Your task to perform on an android device: turn off smart reply in the gmail app Image 0: 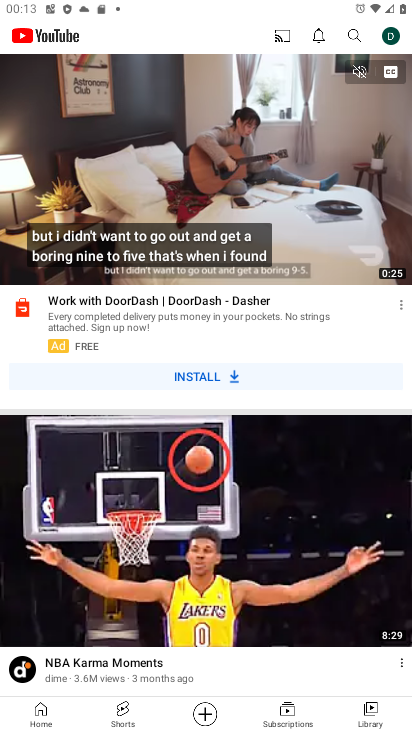
Step 0: press home button
Your task to perform on an android device: turn off smart reply in the gmail app Image 1: 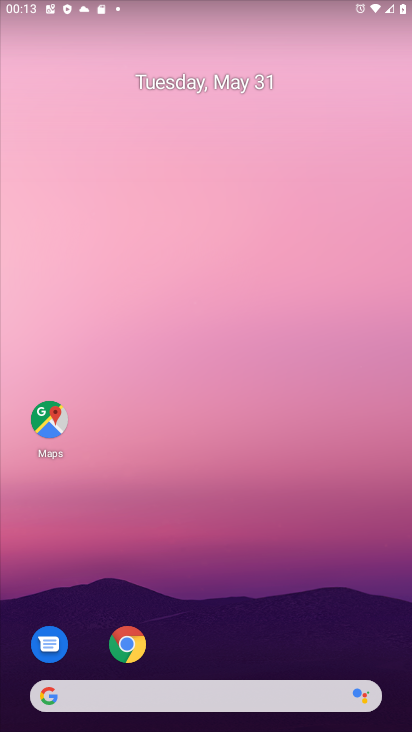
Step 1: drag from (387, 653) to (337, 285)
Your task to perform on an android device: turn off smart reply in the gmail app Image 2: 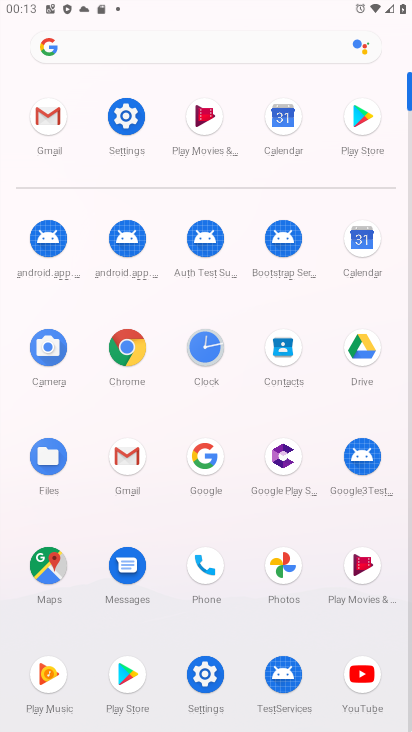
Step 2: click (127, 454)
Your task to perform on an android device: turn off smart reply in the gmail app Image 3: 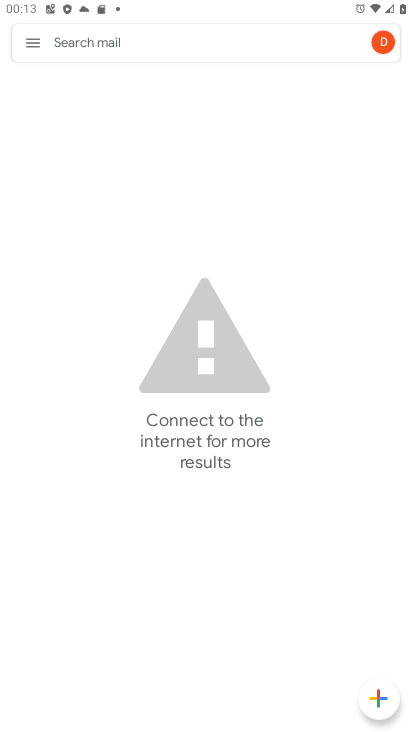
Step 3: click (30, 41)
Your task to perform on an android device: turn off smart reply in the gmail app Image 4: 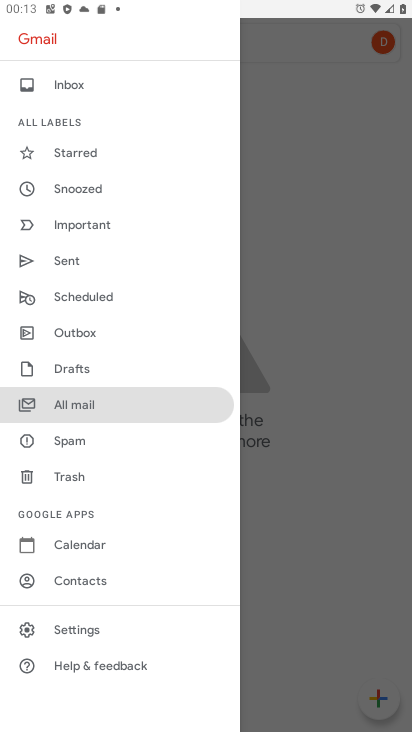
Step 4: click (66, 631)
Your task to perform on an android device: turn off smart reply in the gmail app Image 5: 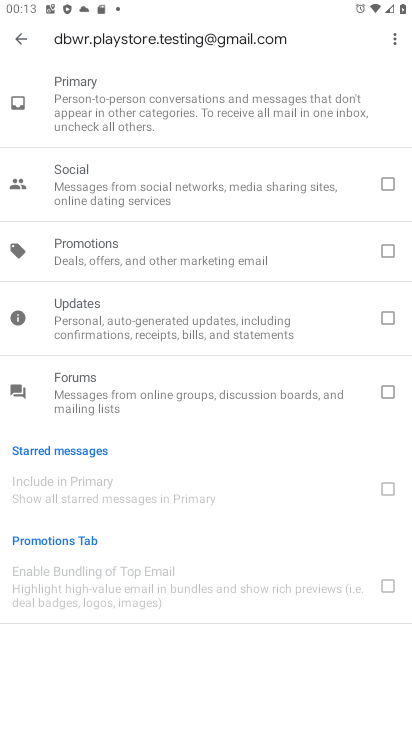
Step 5: press back button
Your task to perform on an android device: turn off smart reply in the gmail app Image 6: 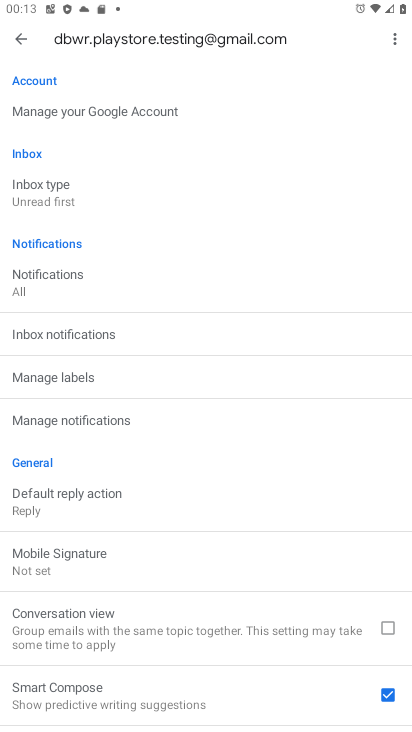
Step 6: drag from (252, 656) to (232, 328)
Your task to perform on an android device: turn off smart reply in the gmail app Image 7: 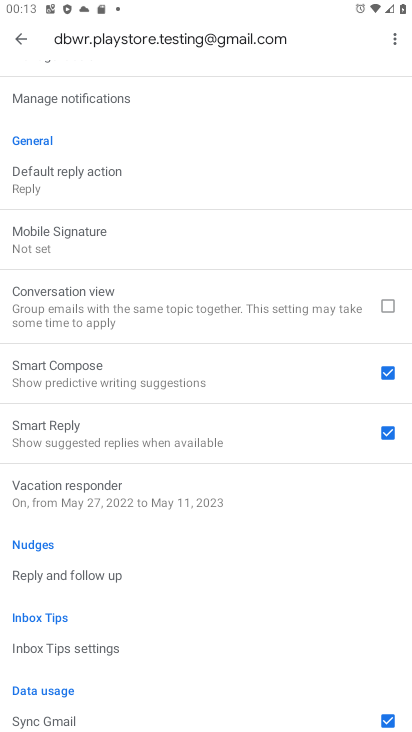
Step 7: click (386, 431)
Your task to perform on an android device: turn off smart reply in the gmail app Image 8: 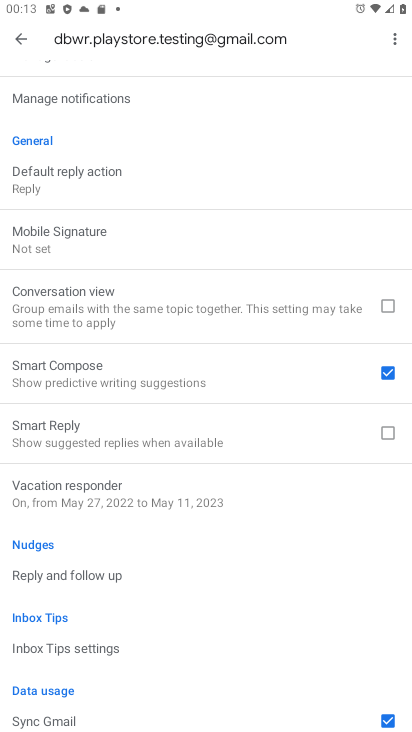
Step 8: task complete